Your task to perform on an android device: search for starred emails in the gmail app Image 0: 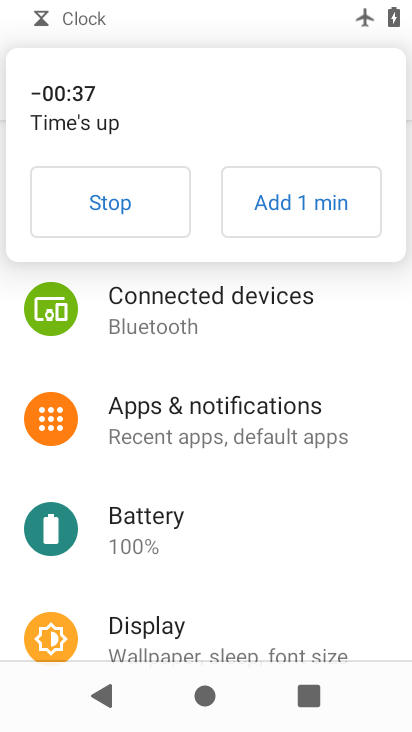
Step 0: press home button
Your task to perform on an android device: search for starred emails in the gmail app Image 1: 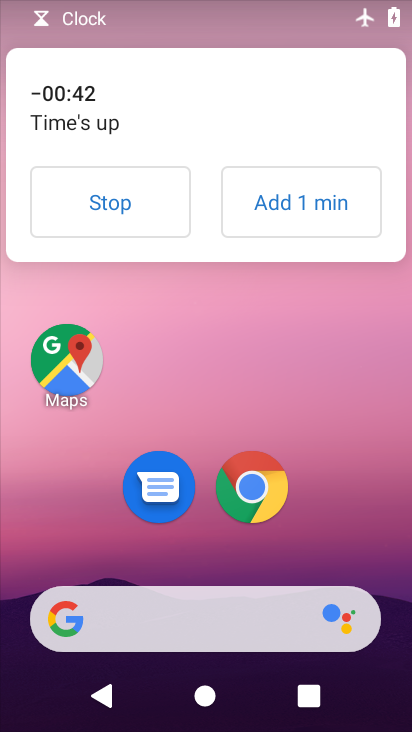
Step 1: click (103, 223)
Your task to perform on an android device: search for starred emails in the gmail app Image 2: 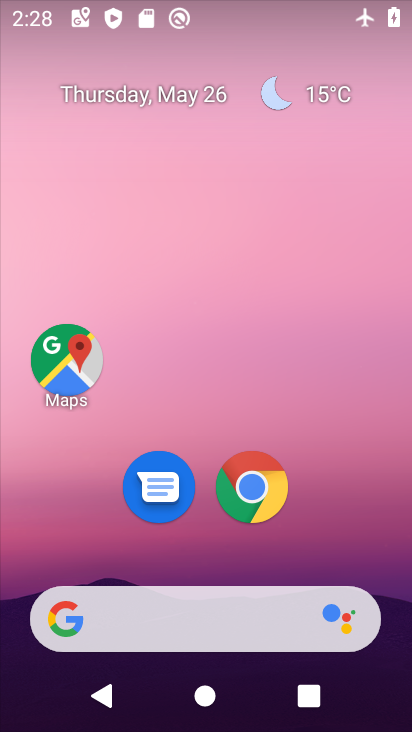
Step 2: drag from (201, 560) to (239, 175)
Your task to perform on an android device: search for starred emails in the gmail app Image 3: 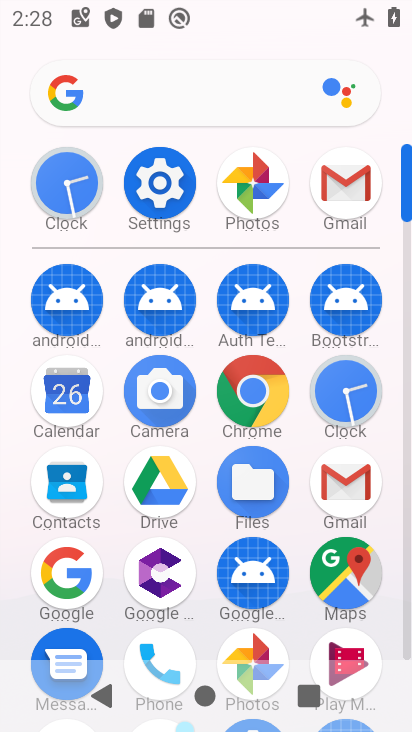
Step 3: click (356, 178)
Your task to perform on an android device: search for starred emails in the gmail app Image 4: 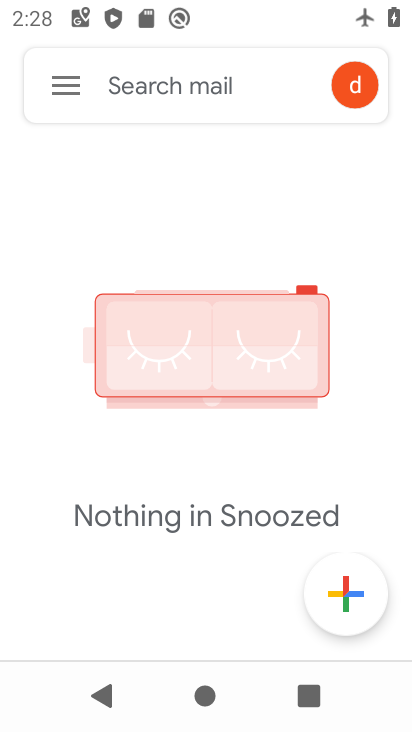
Step 4: click (64, 82)
Your task to perform on an android device: search for starred emails in the gmail app Image 5: 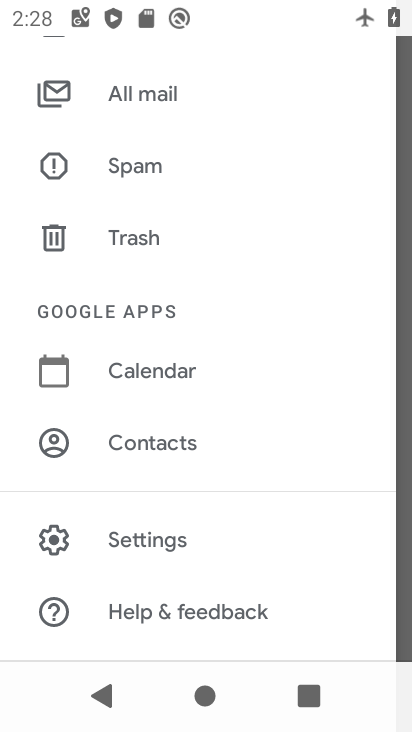
Step 5: drag from (339, 157) to (339, 562)
Your task to perform on an android device: search for starred emails in the gmail app Image 6: 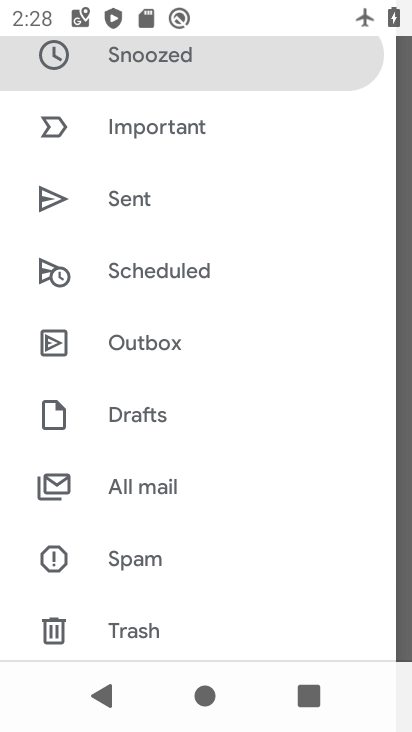
Step 6: drag from (190, 144) to (198, 407)
Your task to perform on an android device: search for starred emails in the gmail app Image 7: 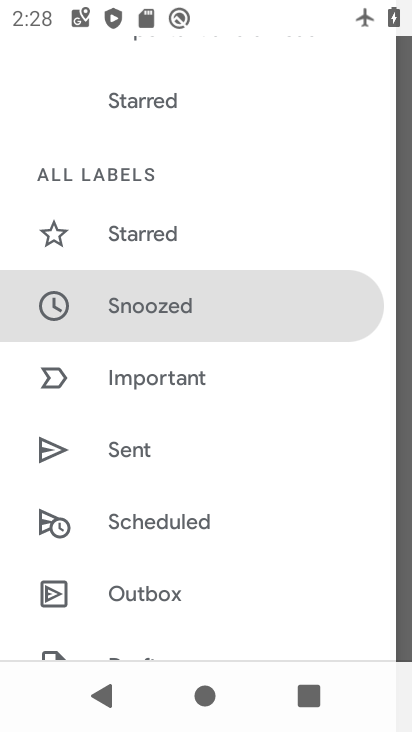
Step 7: click (172, 233)
Your task to perform on an android device: search for starred emails in the gmail app Image 8: 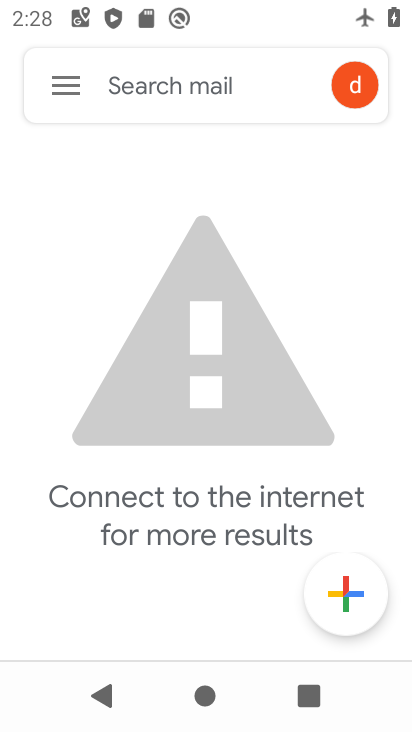
Step 8: task complete